Your task to perform on an android device: When is my next appointment? Image 0: 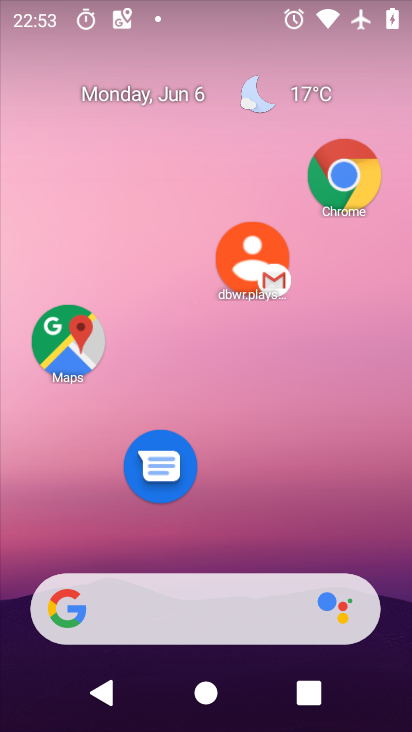
Step 0: click (204, 266)
Your task to perform on an android device: When is my next appointment? Image 1: 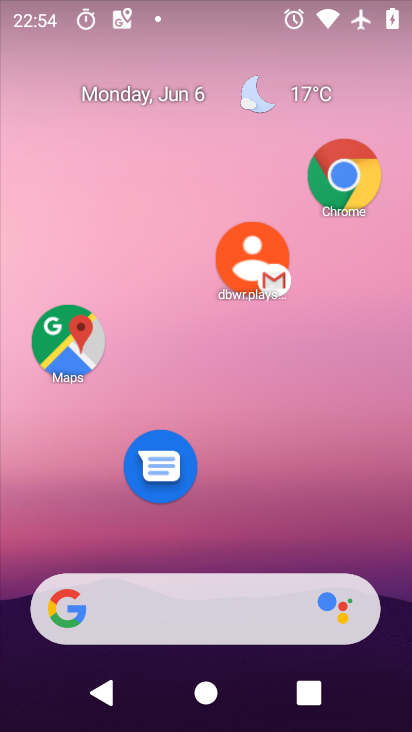
Step 1: drag from (216, 496) to (146, 3)
Your task to perform on an android device: When is my next appointment? Image 2: 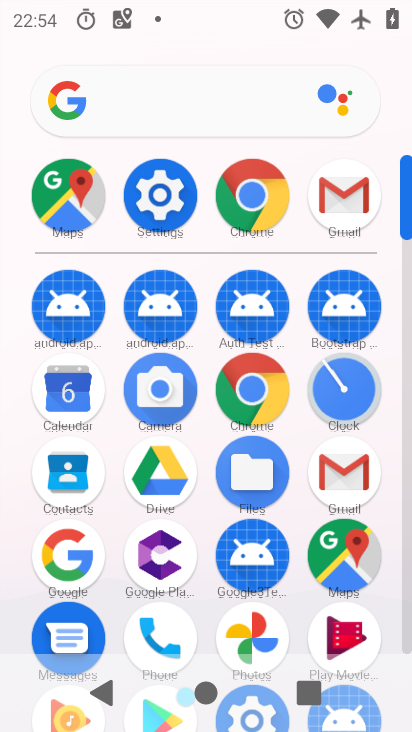
Step 2: click (68, 395)
Your task to perform on an android device: When is my next appointment? Image 3: 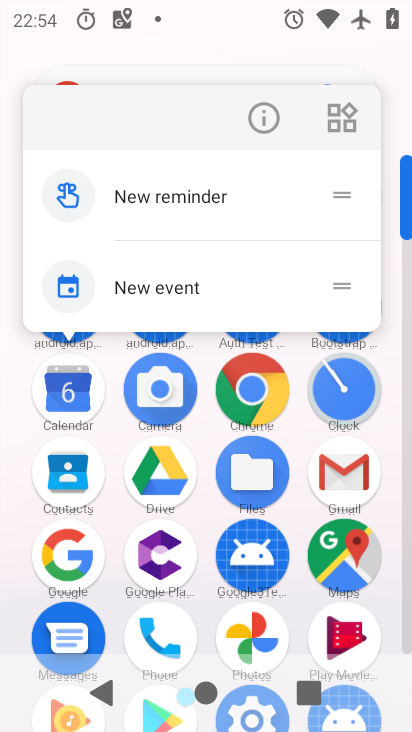
Step 3: click (269, 99)
Your task to perform on an android device: When is my next appointment? Image 4: 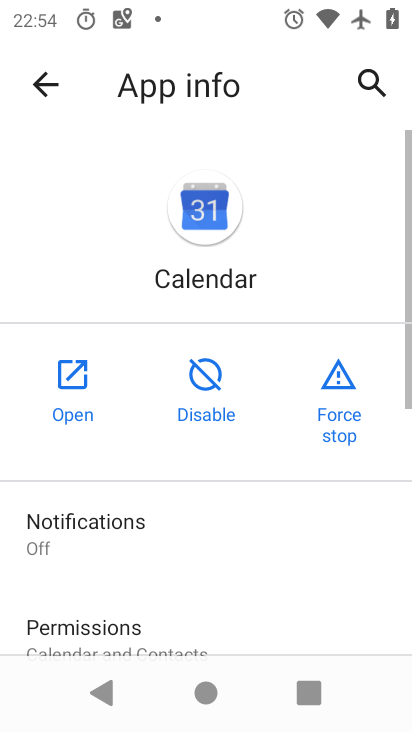
Step 4: click (70, 368)
Your task to perform on an android device: When is my next appointment? Image 5: 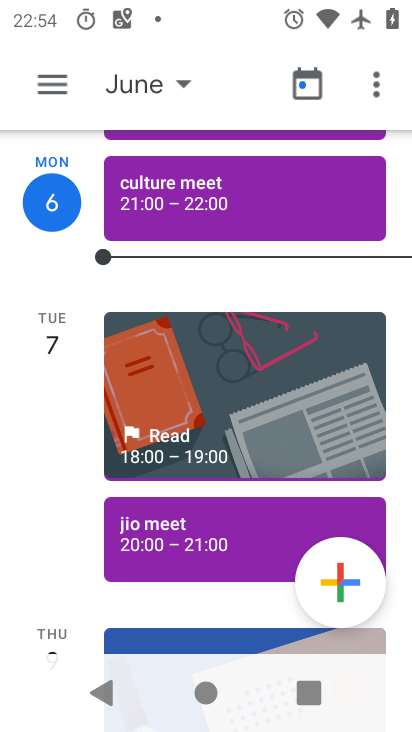
Step 5: drag from (166, 425) to (203, 102)
Your task to perform on an android device: When is my next appointment? Image 6: 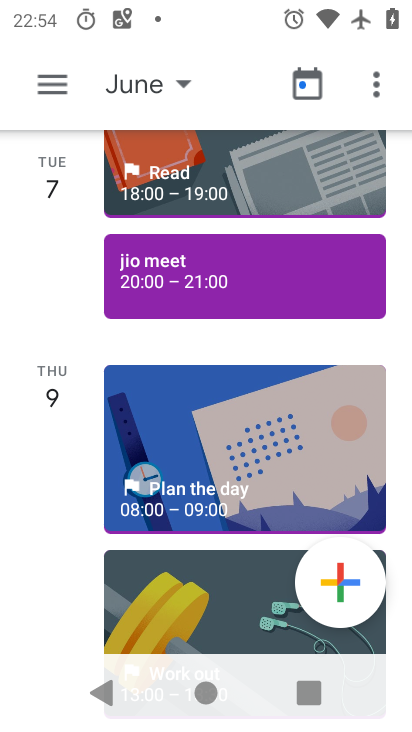
Step 6: drag from (204, 473) to (225, 203)
Your task to perform on an android device: When is my next appointment? Image 7: 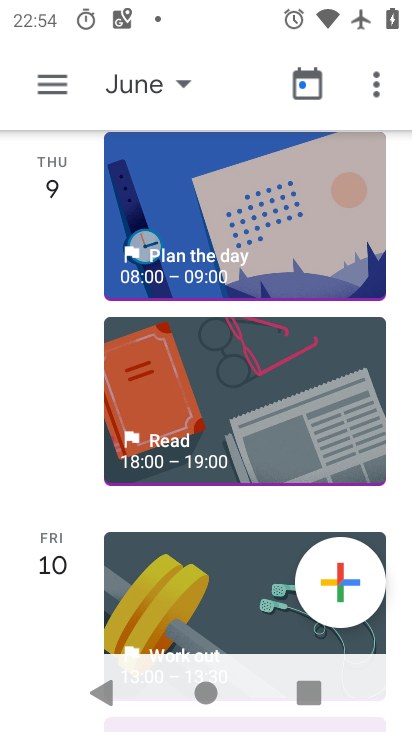
Step 7: click (161, 99)
Your task to perform on an android device: When is my next appointment? Image 8: 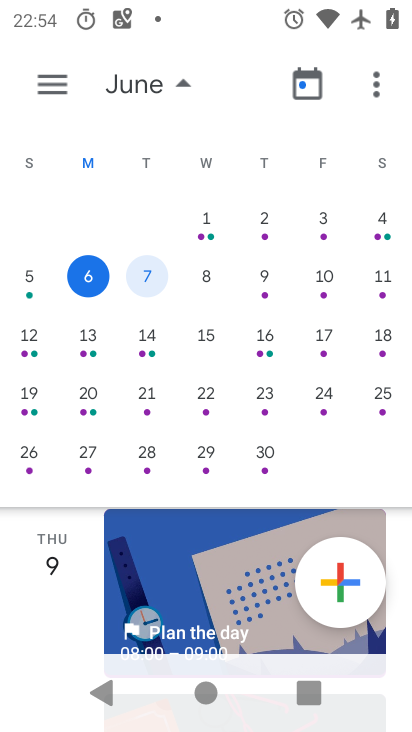
Step 8: click (84, 270)
Your task to perform on an android device: When is my next appointment? Image 9: 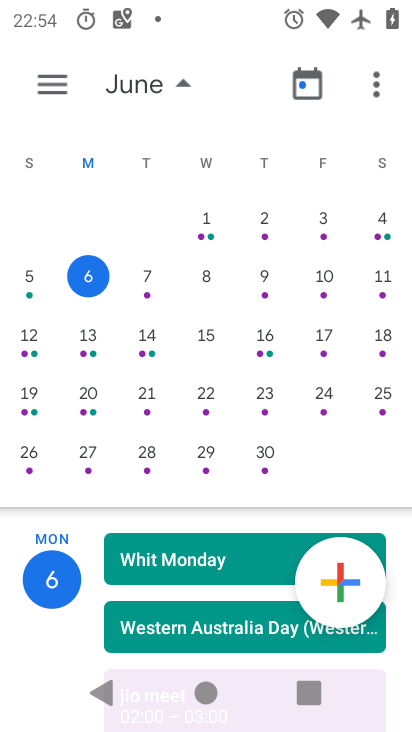
Step 9: task complete